Your task to perform on an android device: toggle translation in the chrome app Image 0: 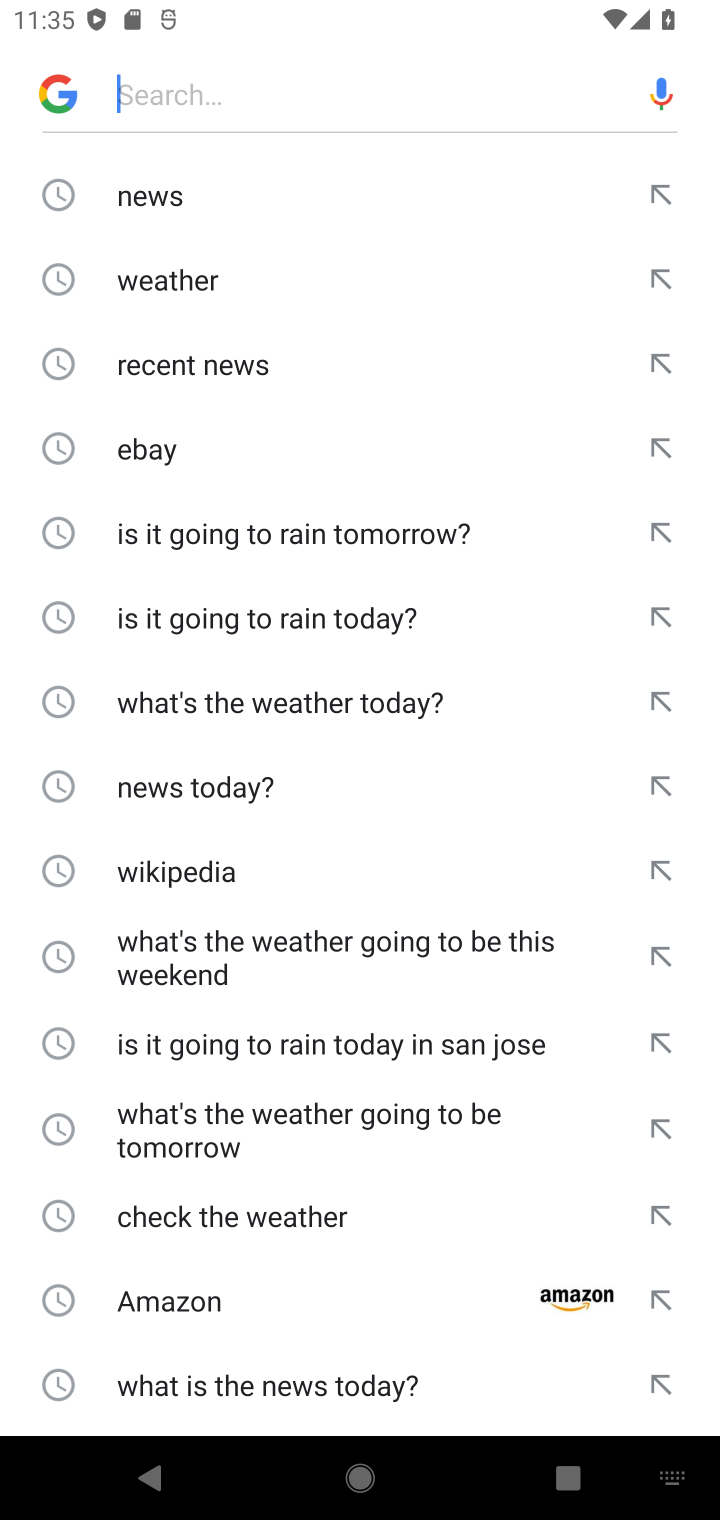
Step 0: press home button
Your task to perform on an android device: toggle translation in the chrome app Image 1: 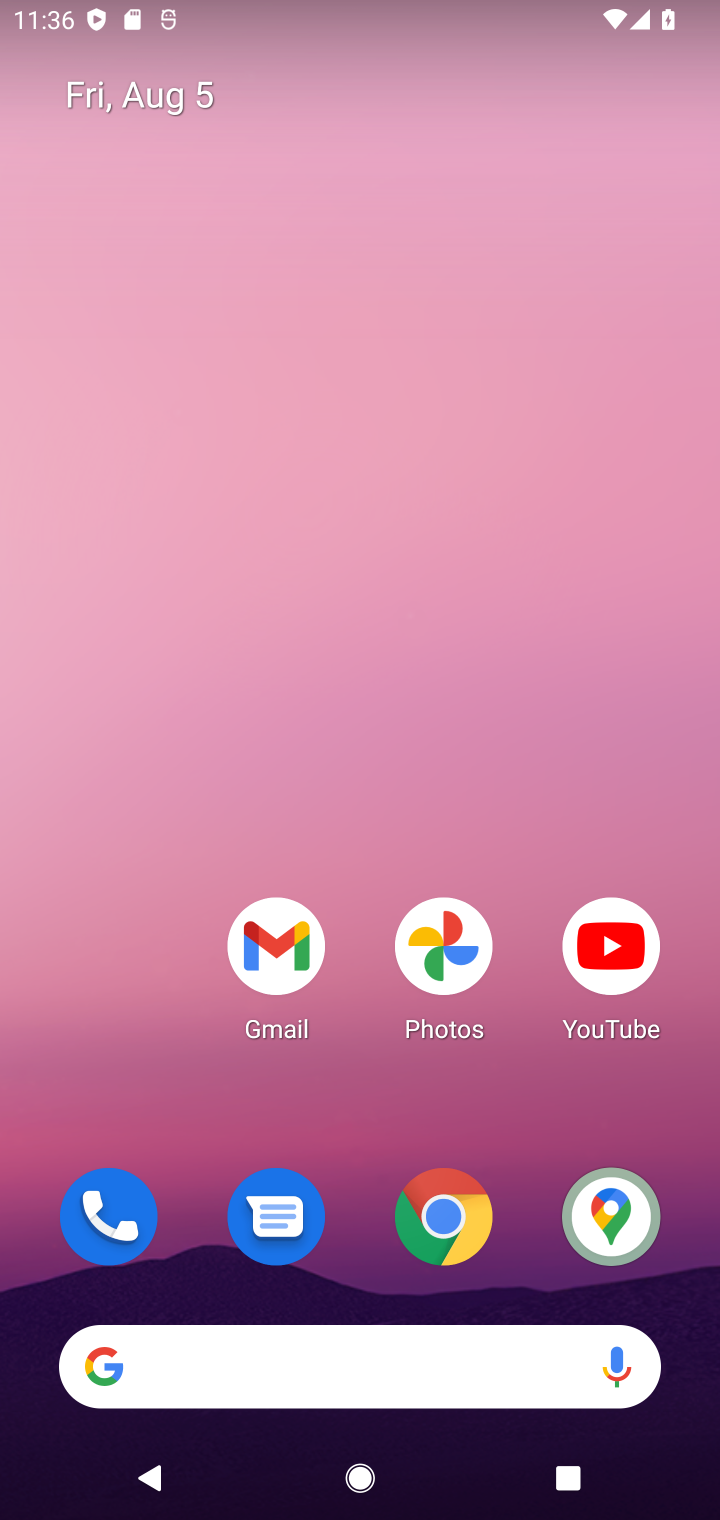
Step 1: click (437, 1231)
Your task to perform on an android device: toggle translation in the chrome app Image 2: 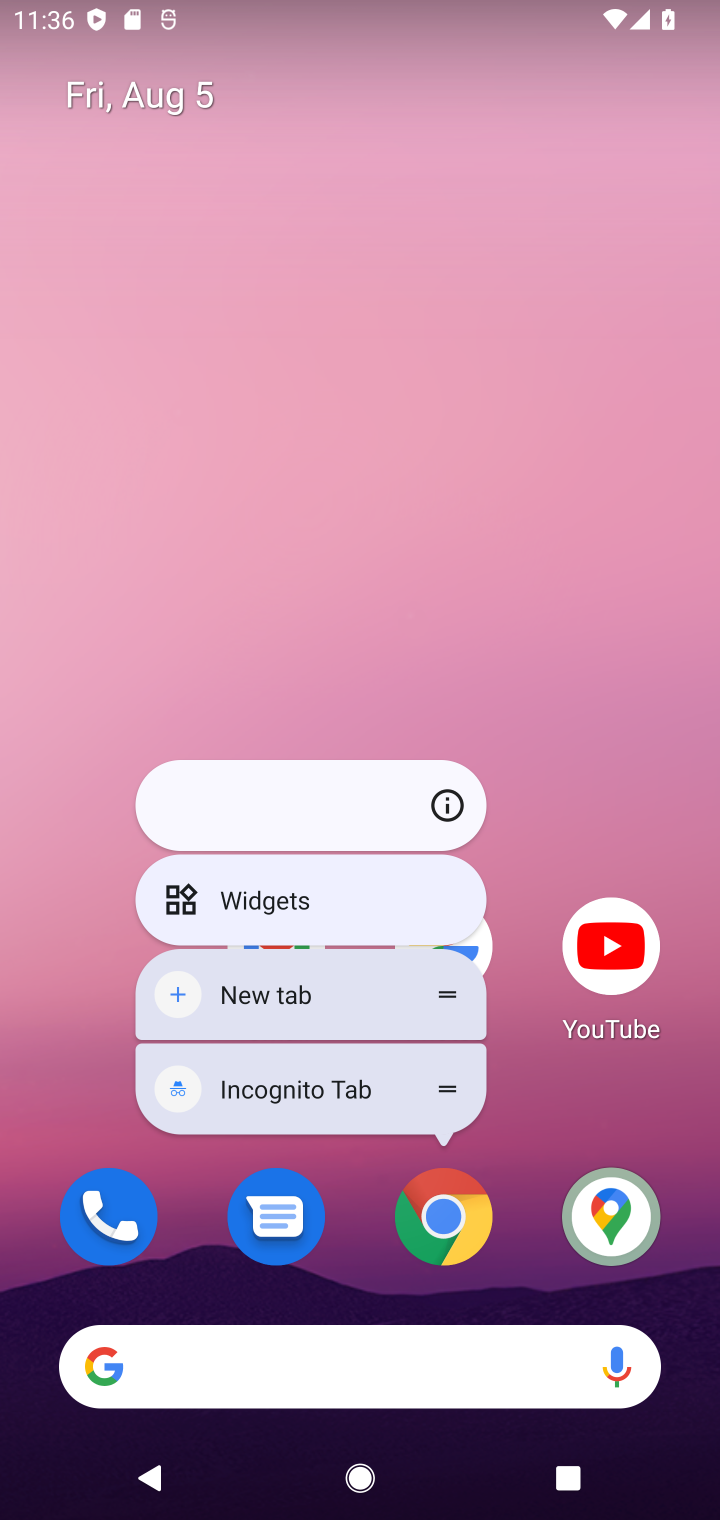
Step 2: click (437, 1231)
Your task to perform on an android device: toggle translation in the chrome app Image 3: 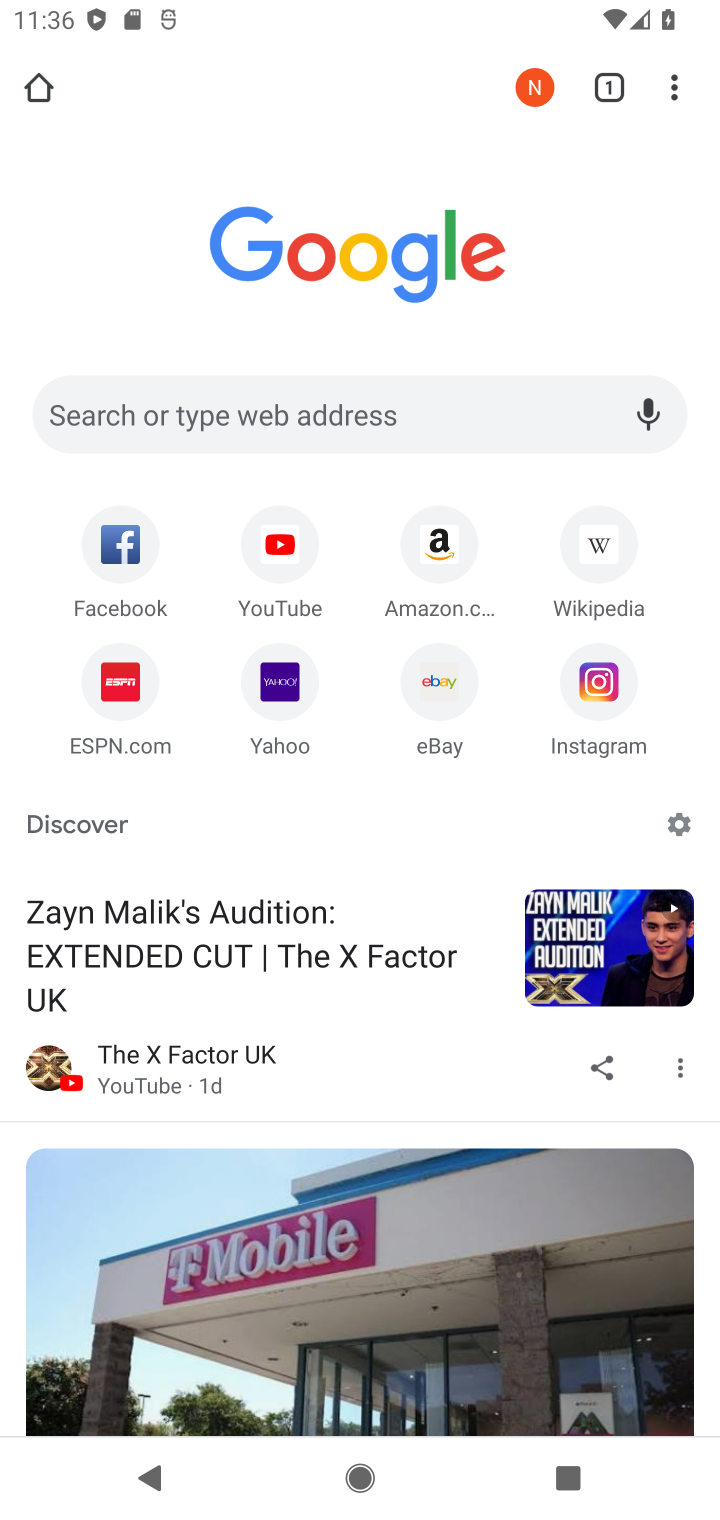
Step 3: click (671, 87)
Your task to perform on an android device: toggle translation in the chrome app Image 4: 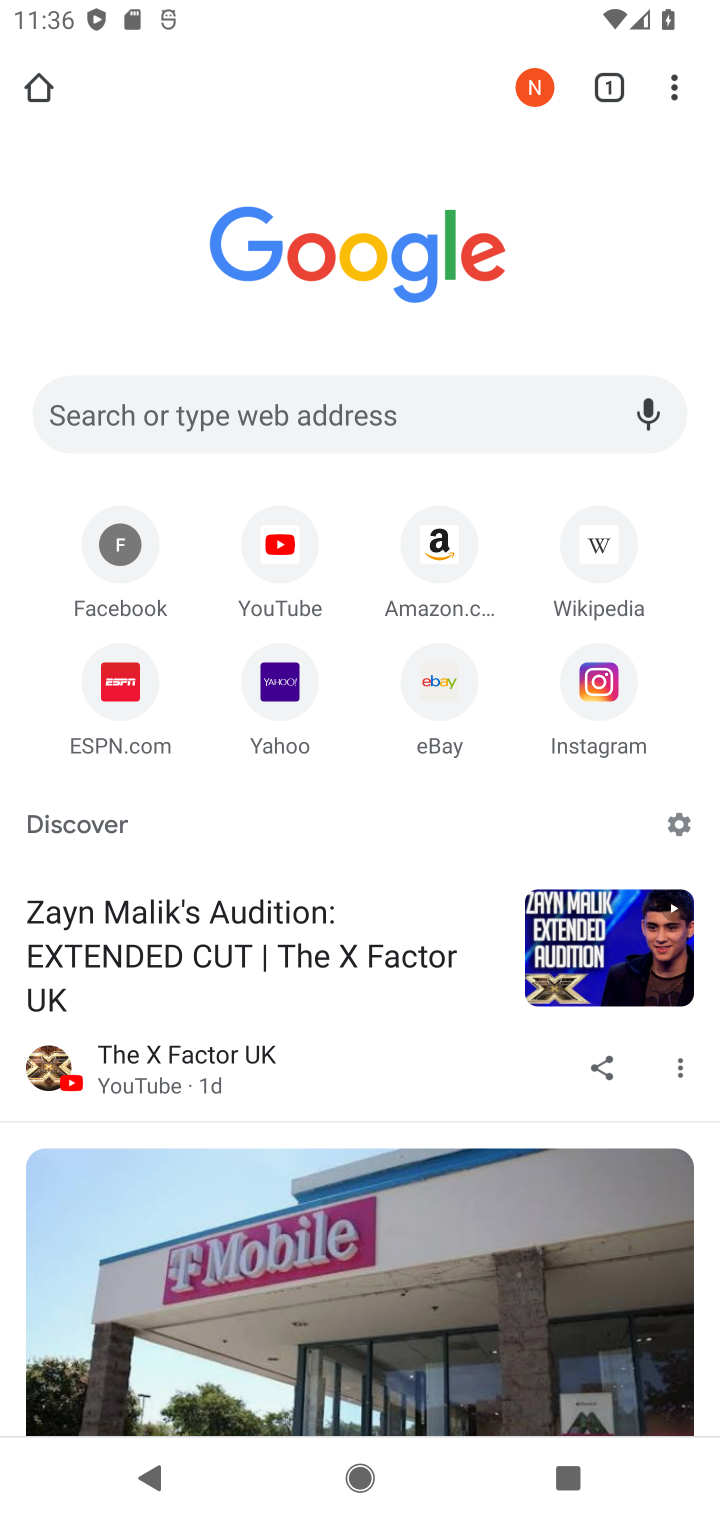
Step 4: click (671, 87)
Your task to perform on an android device: toggle translation in the chrome app Image 5: 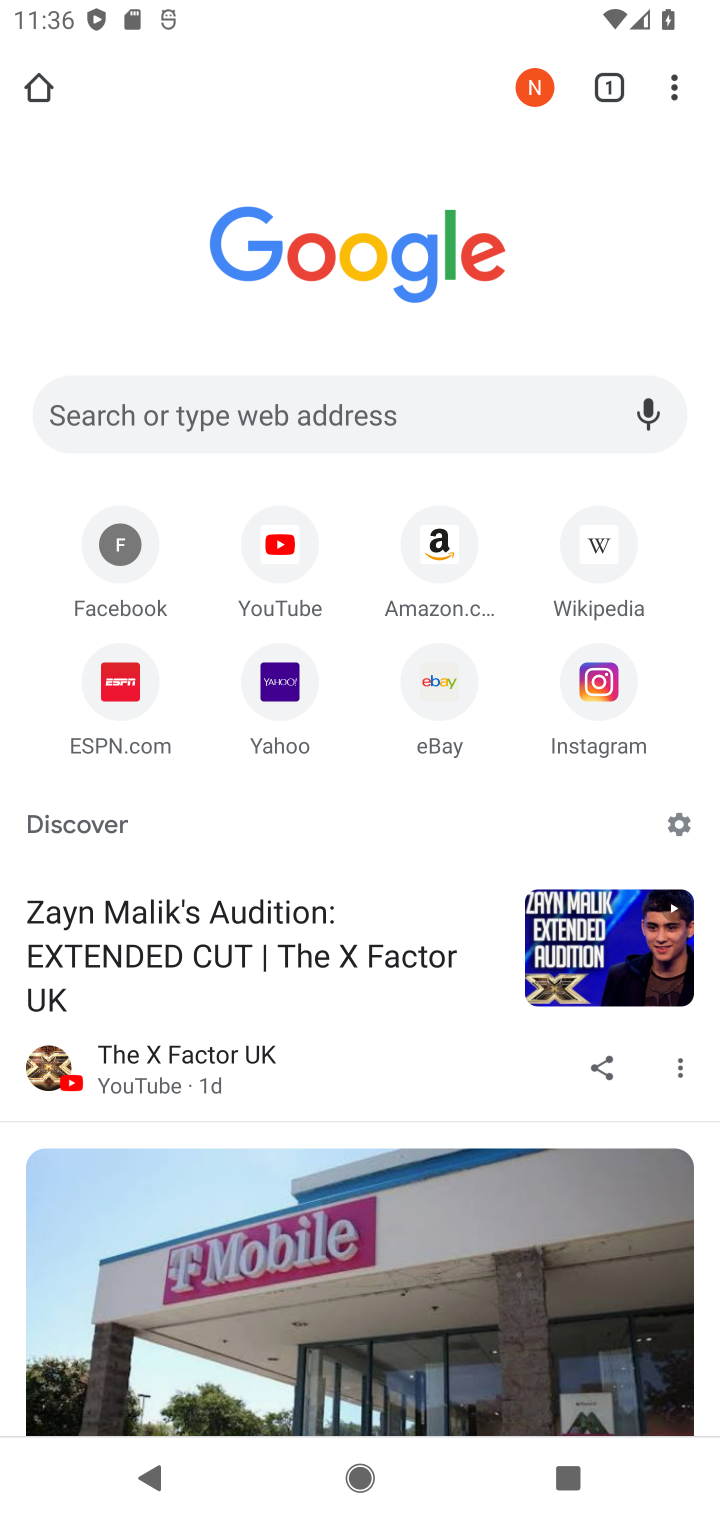
Step 5: click (671, 84)
Your task to perform on an android device: toggle translation in the chrome app Image 6: 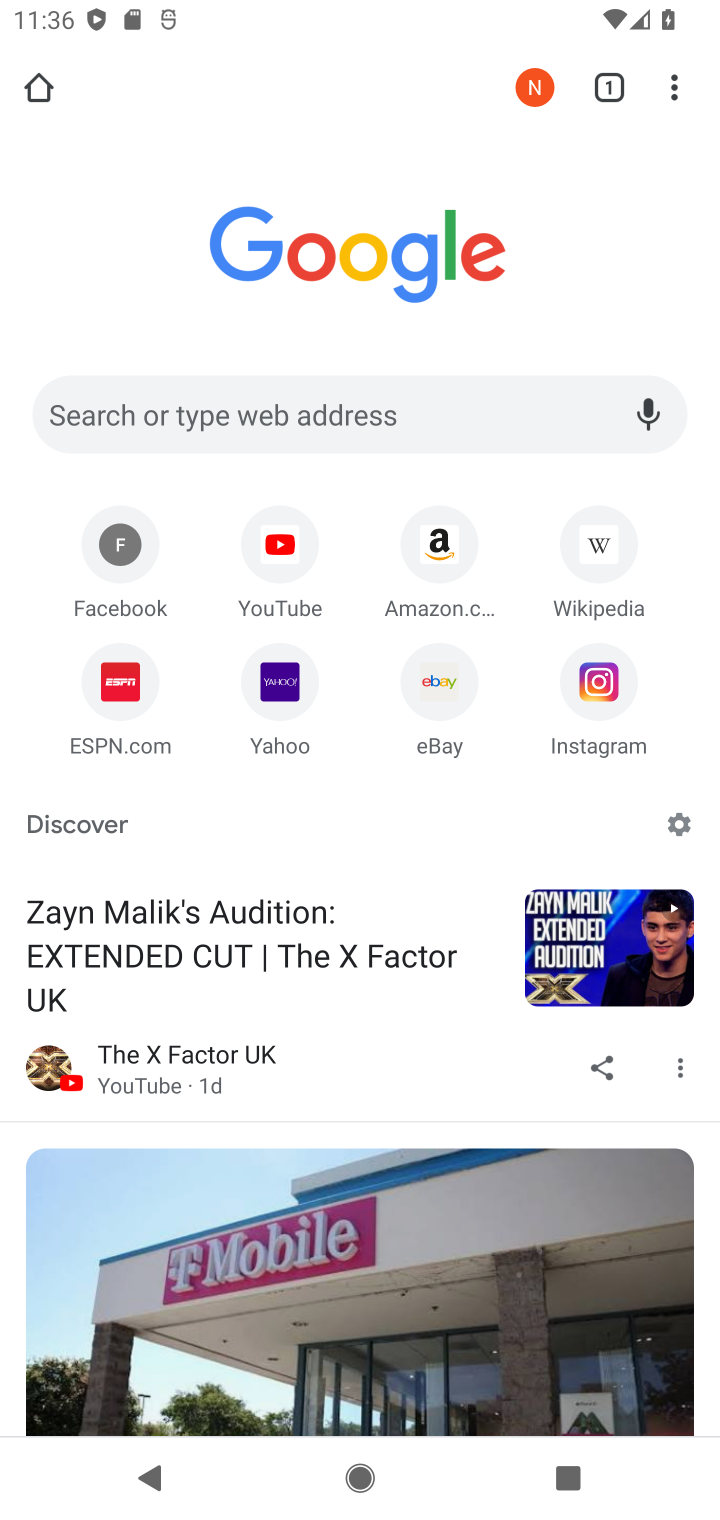
Step 6: click (671, 84)
Your task to perform on an android device: toggle translation in the chrome app Image 7: 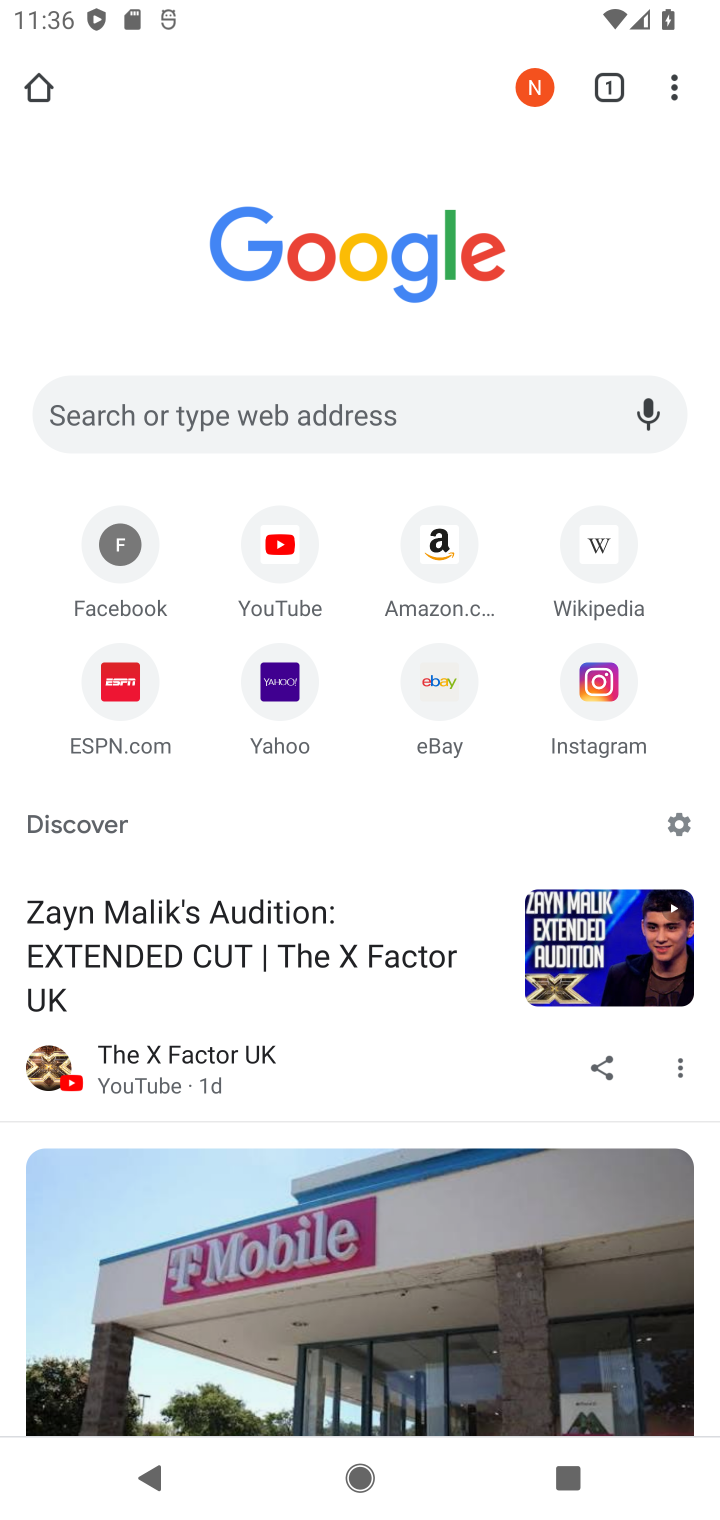
Step 7: click (671, 84)
Your task to perform on an android device: toggle translation in the chrome app Image 8: 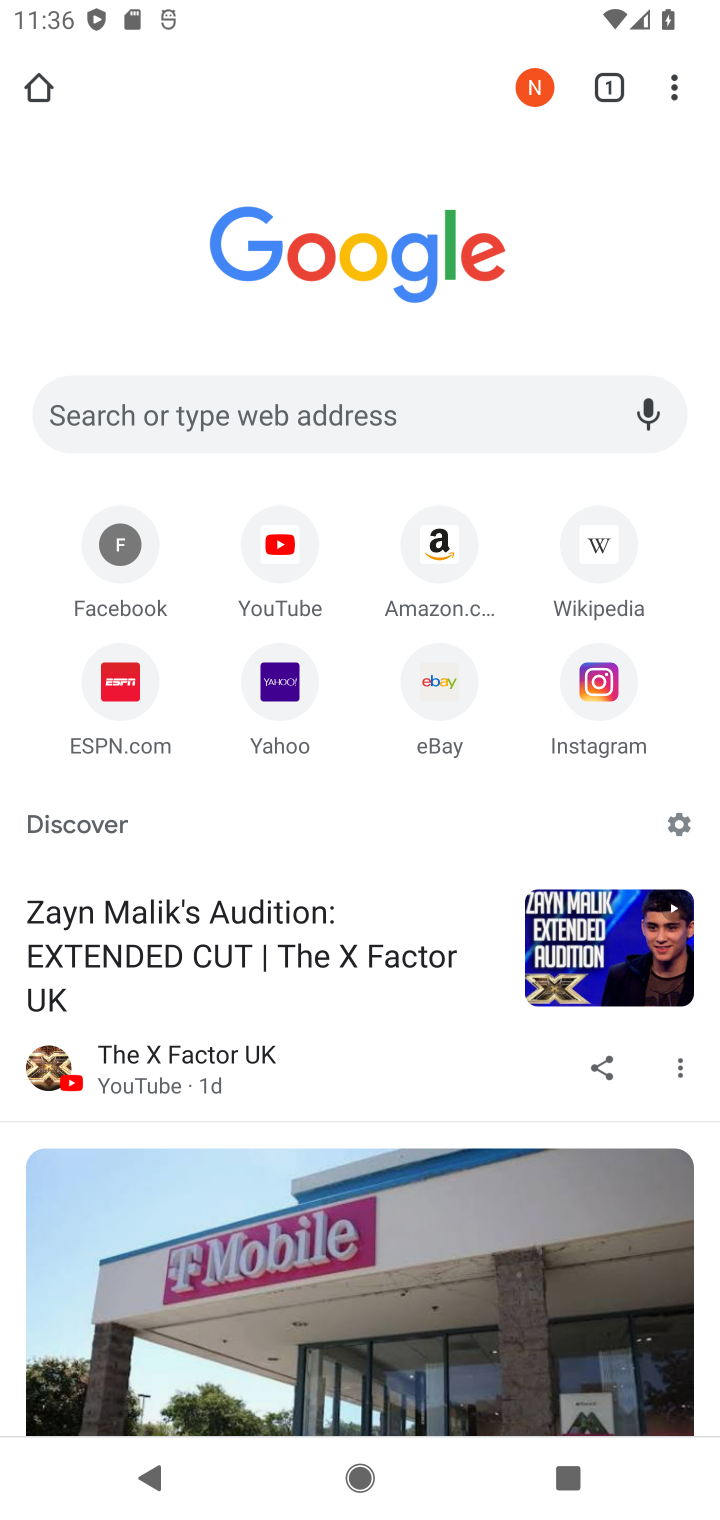
Step 8: click (671, 84)
Your task to perform on an android device: toggle translation in the chrome app Image 9: 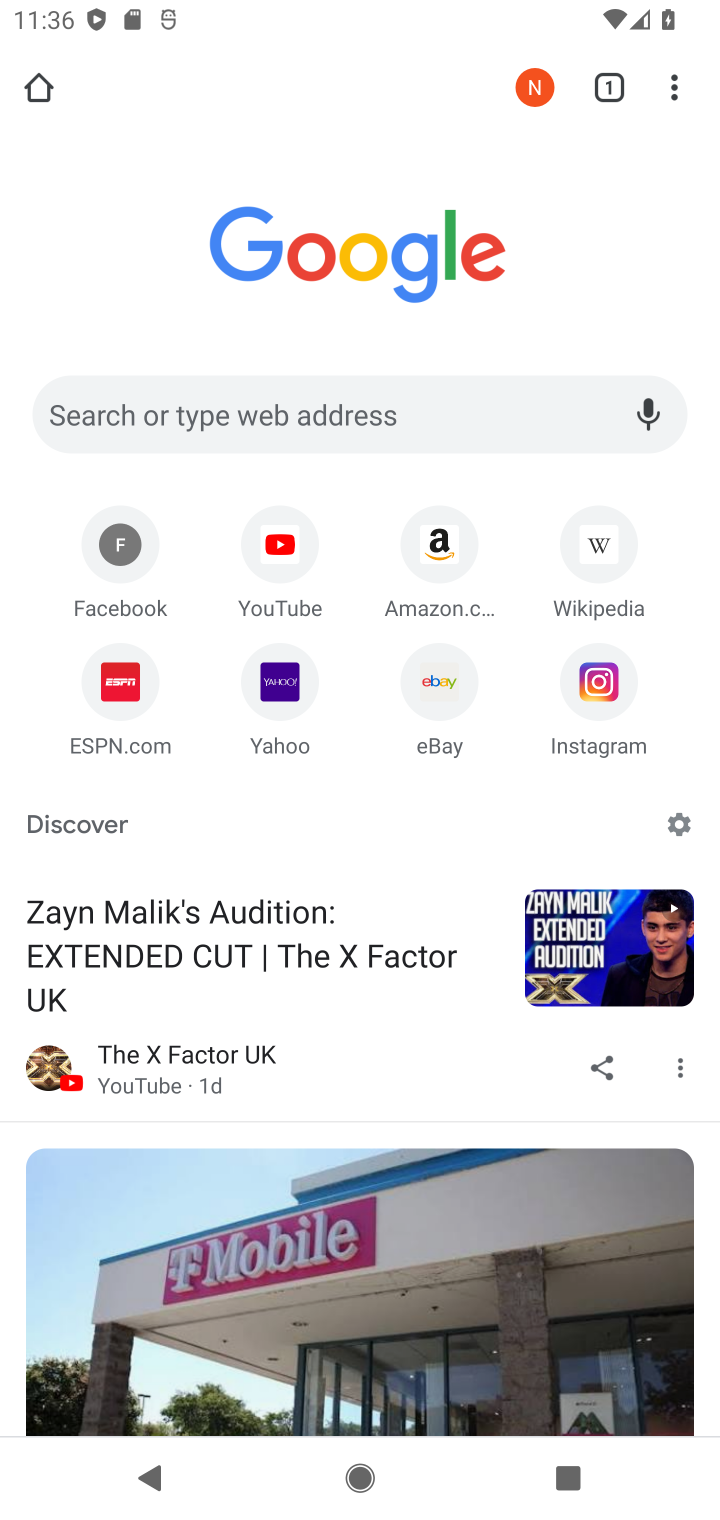
Step 9: click (674, 97)
Your task to perform on an android device: toggle translation in the chrome app Image 10: 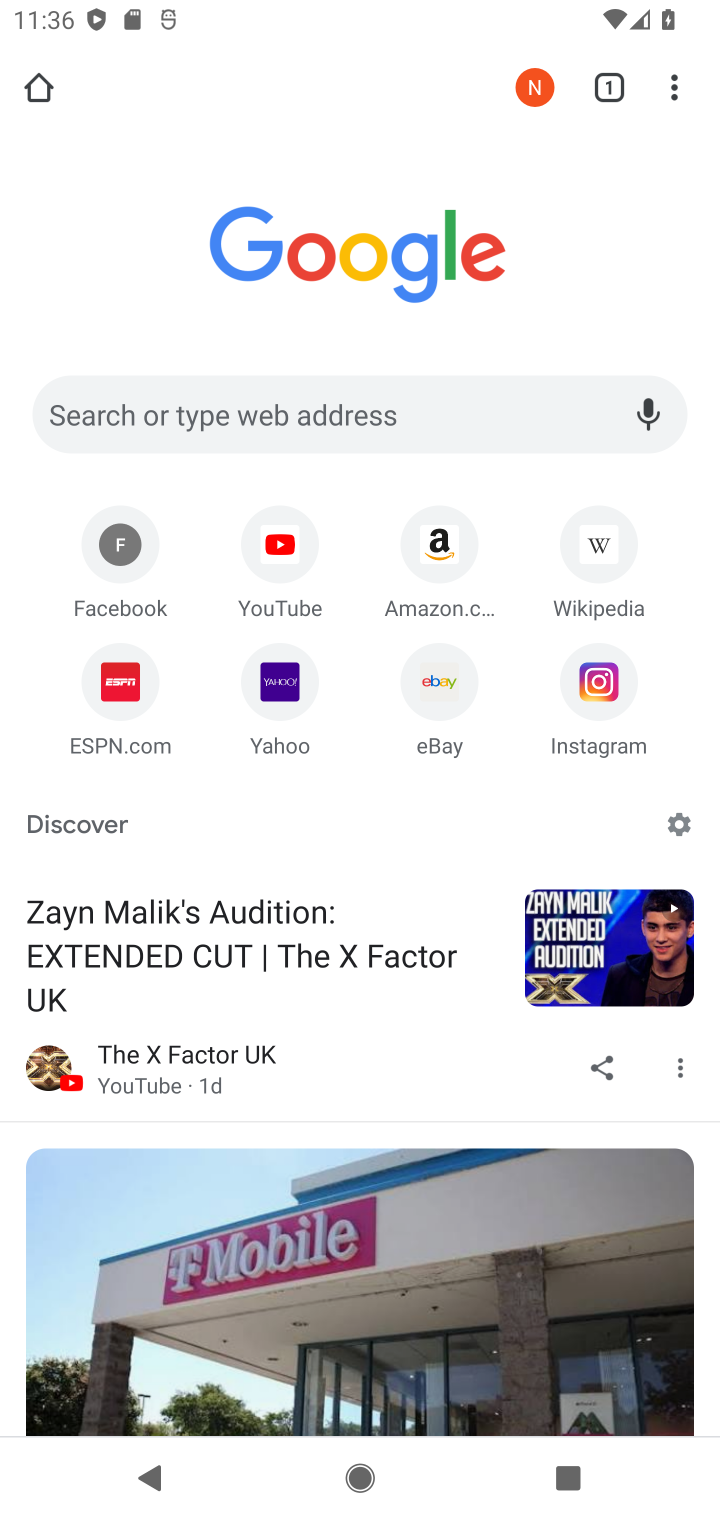
Step 10: click (674, 97)
Your task to perform on an android device: toggle translation in the chrome app Image 11: 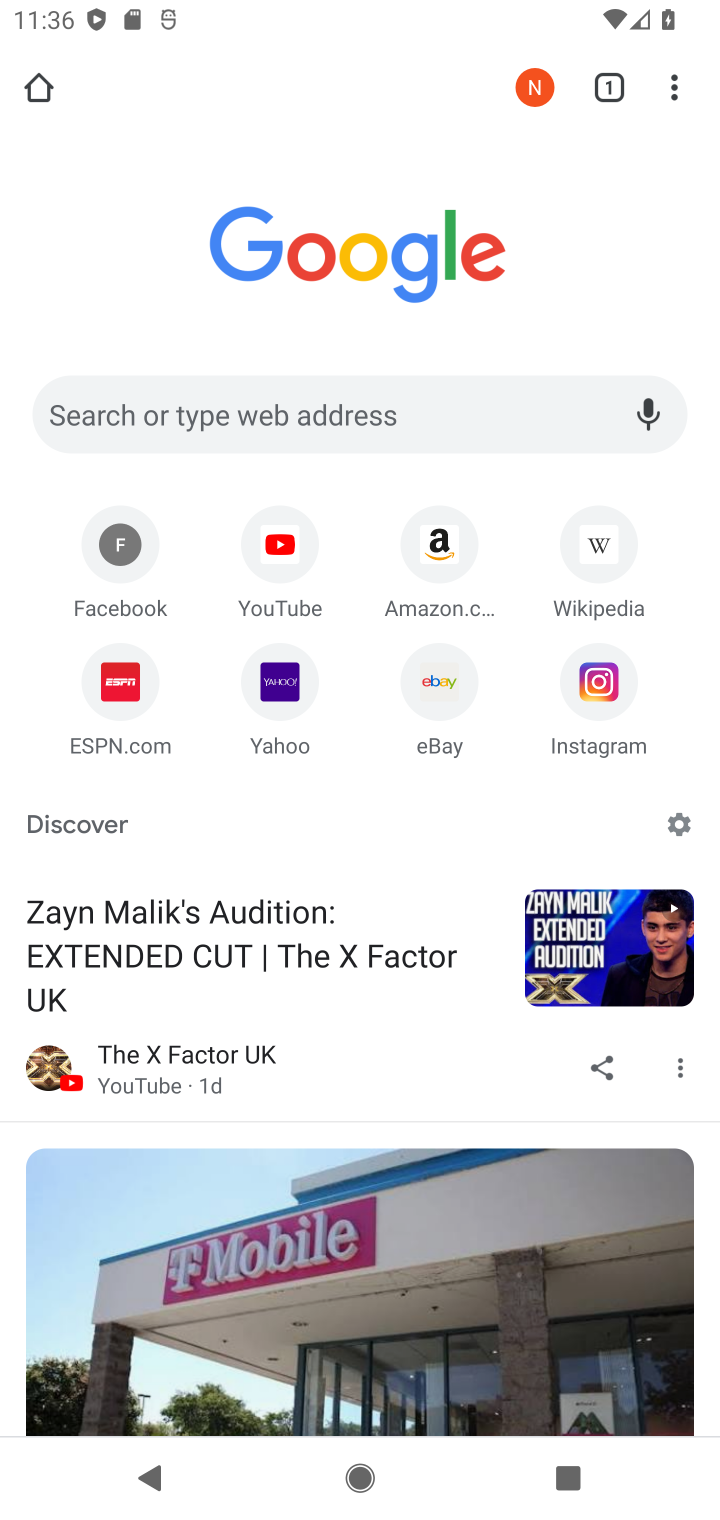
Step 11: click (674, 97)
Your task to perform on an android device: toggle translation in the chrome app Image 12: 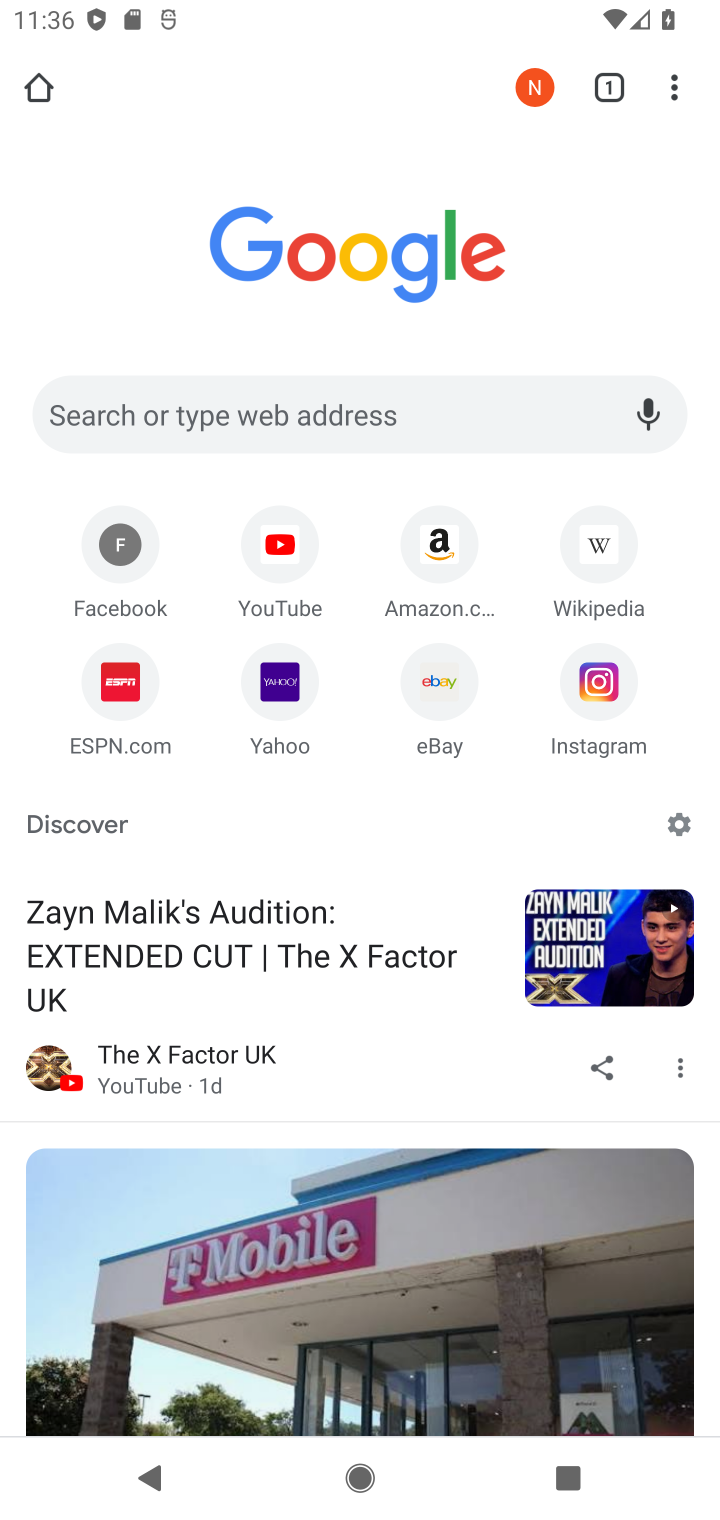
Step 12: click (674, 97)
Your task to perform on an android device: toggle translation in the chrome app Image 13: 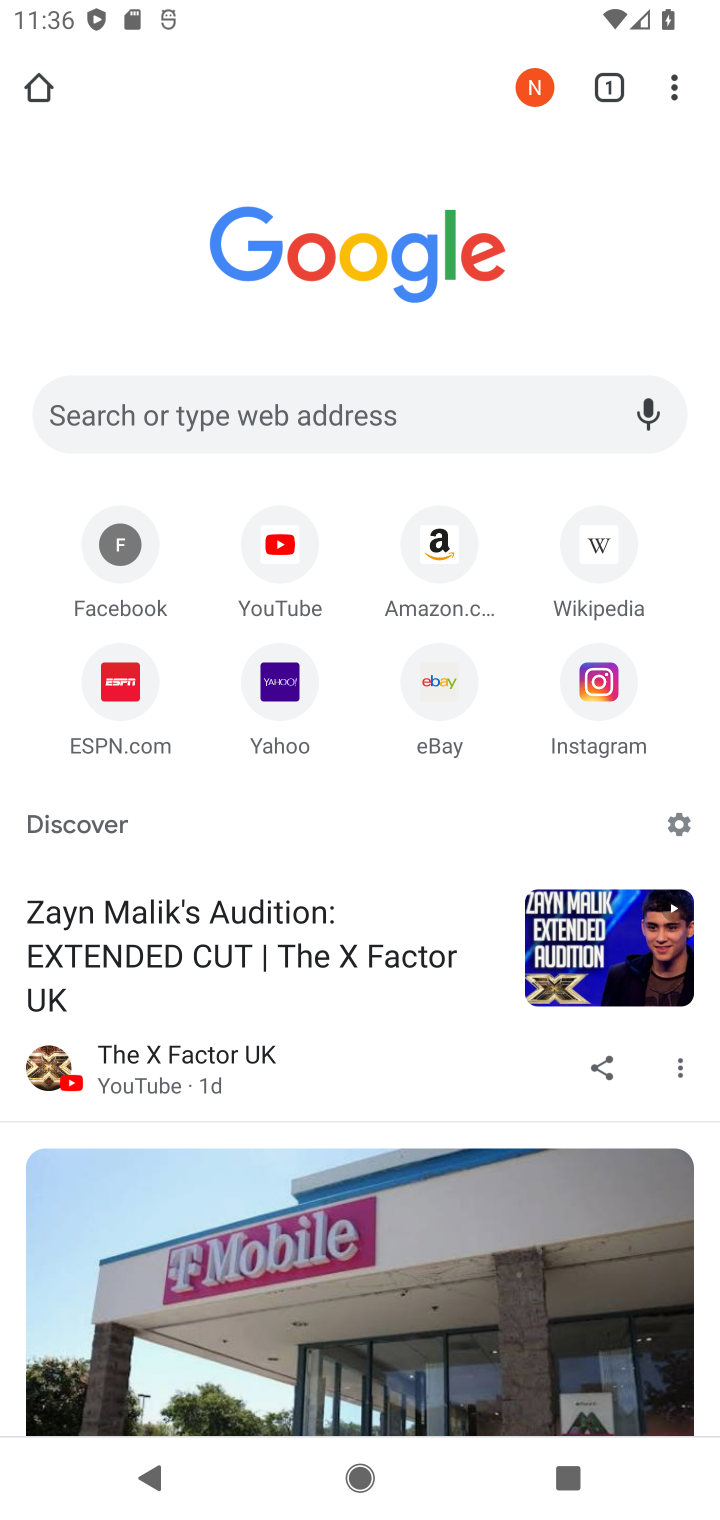
Step 13: click (674, 97)
Your task to perform on an android device: toggle translation in the chrome app Image 14: 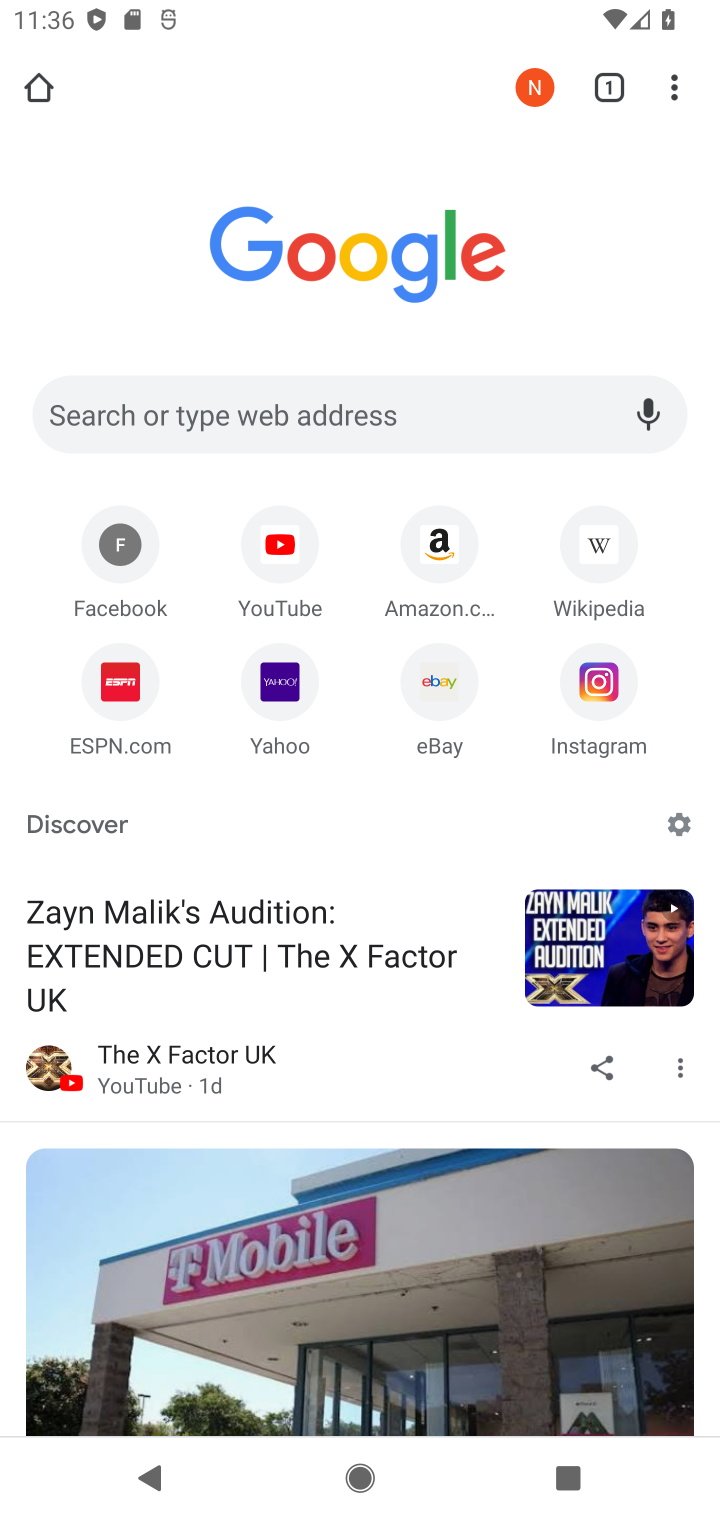
Step 14: click (674, 97)
Your task to perform on an android device: toggle translation in the chrome app Image 15: 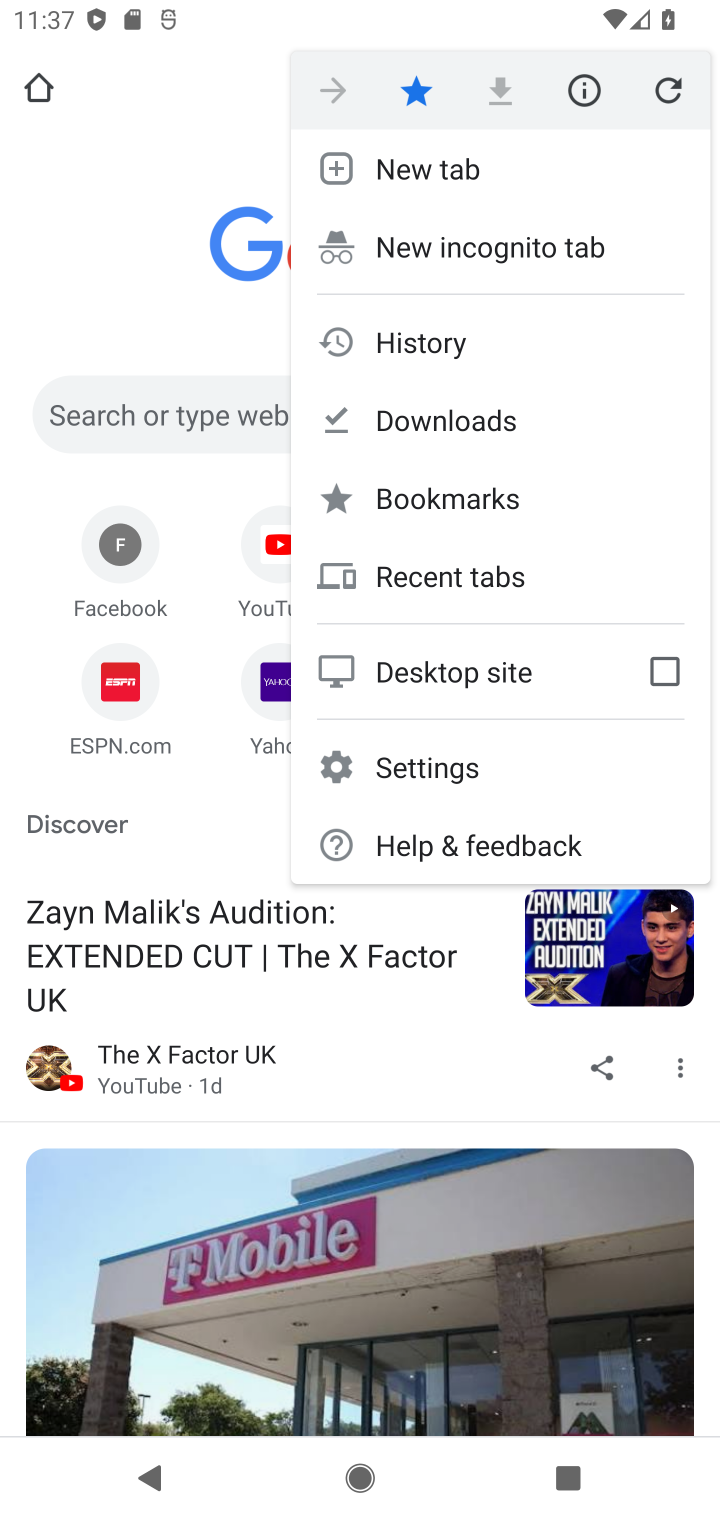
Step 15: click (438, 763)
Your task to perform on an android device: toggle translation in the chrome app Image 16: 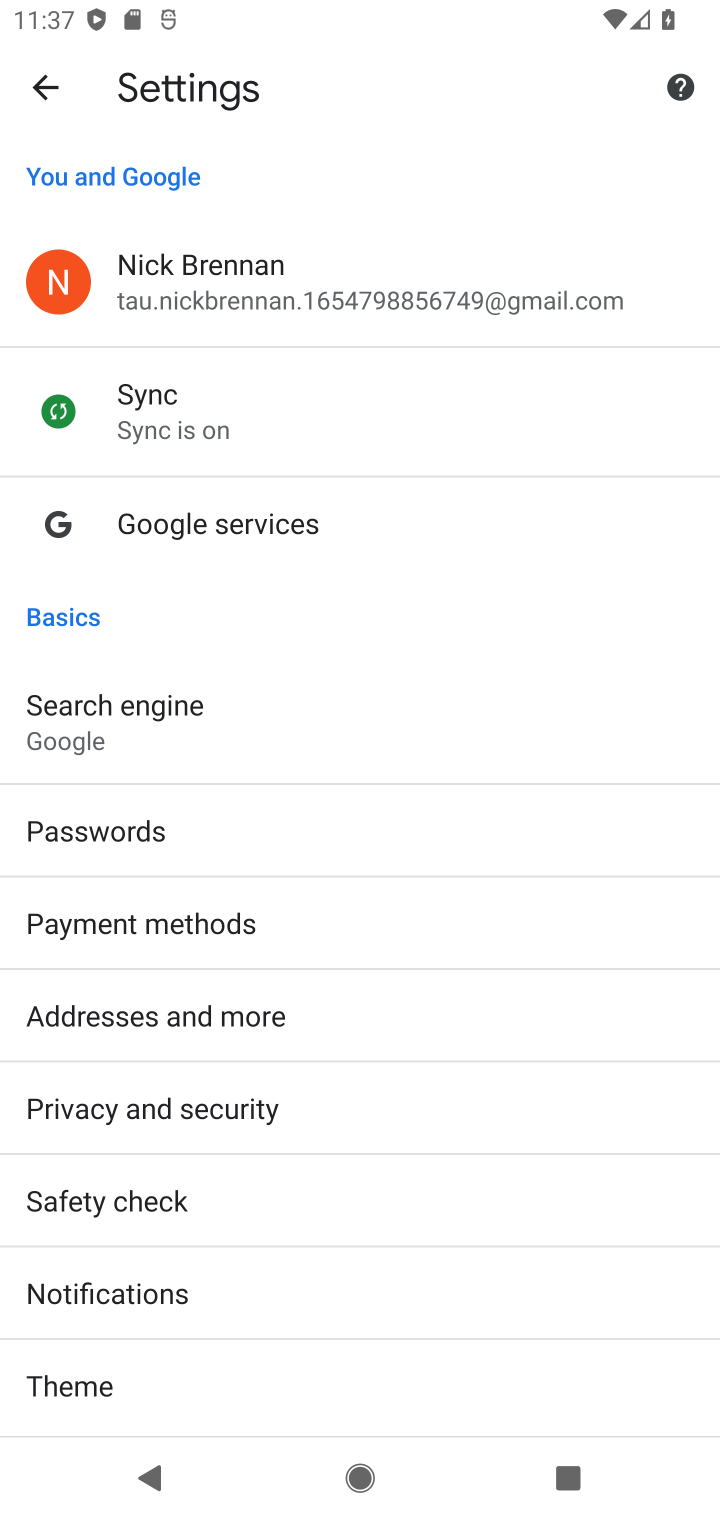
Step 16: drag from (392, 1304) to (424, 99)
Your task to perform on an android device: toggle translation in the chrome app Image 17: 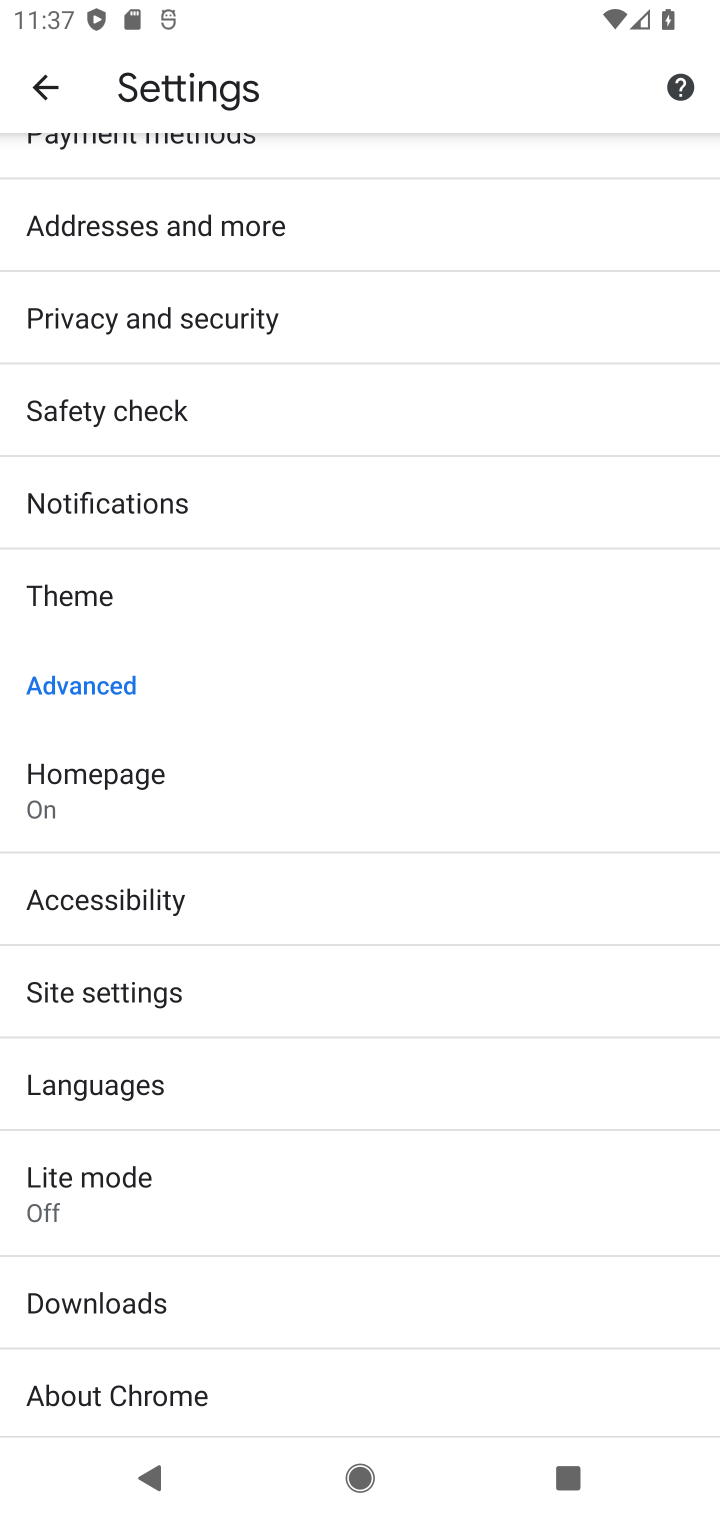
Step 17: click (316, 1080)
Your task to perform on an android device: toggle translation in the chrome app Image 18: 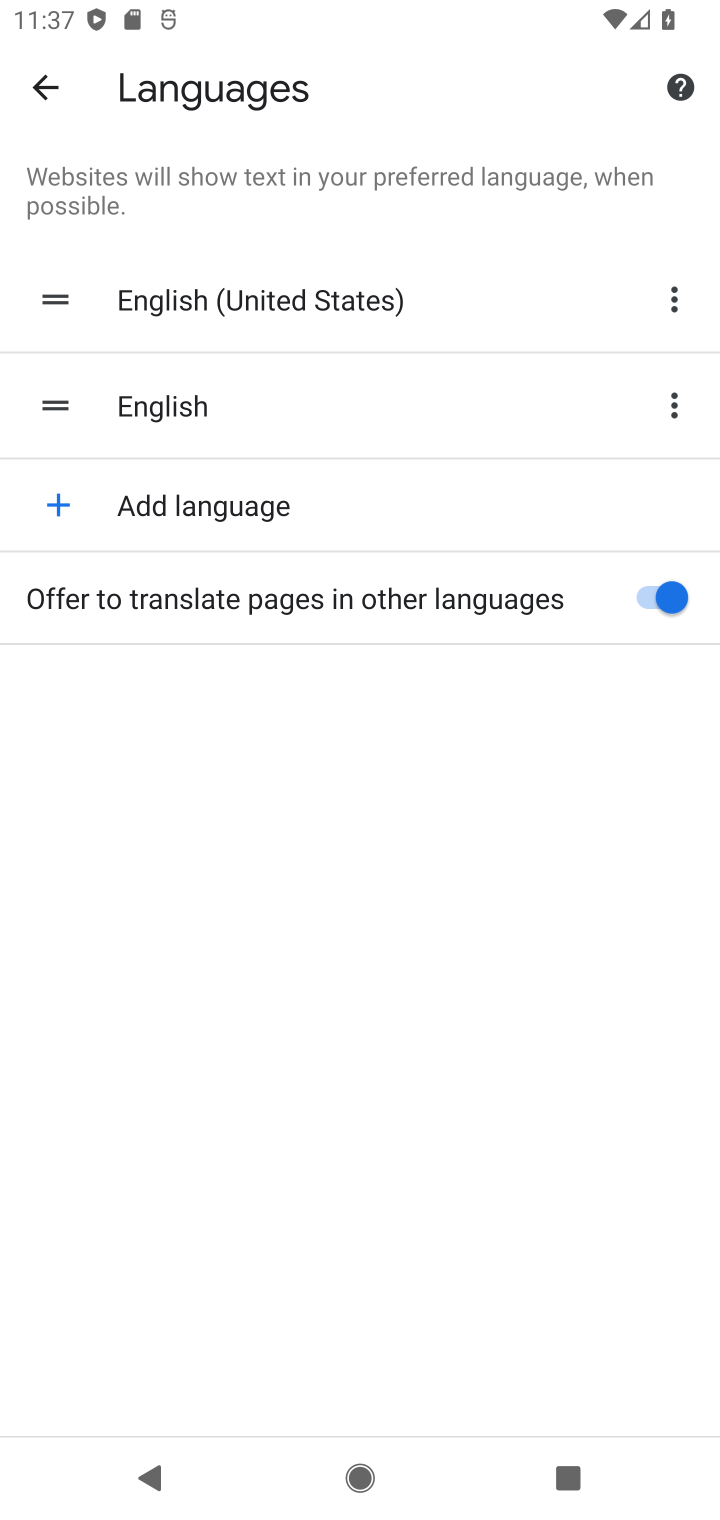
Step 18: click (677, 600)
Your task to perform on an android device: toggle translation in the chrome app Image 19: 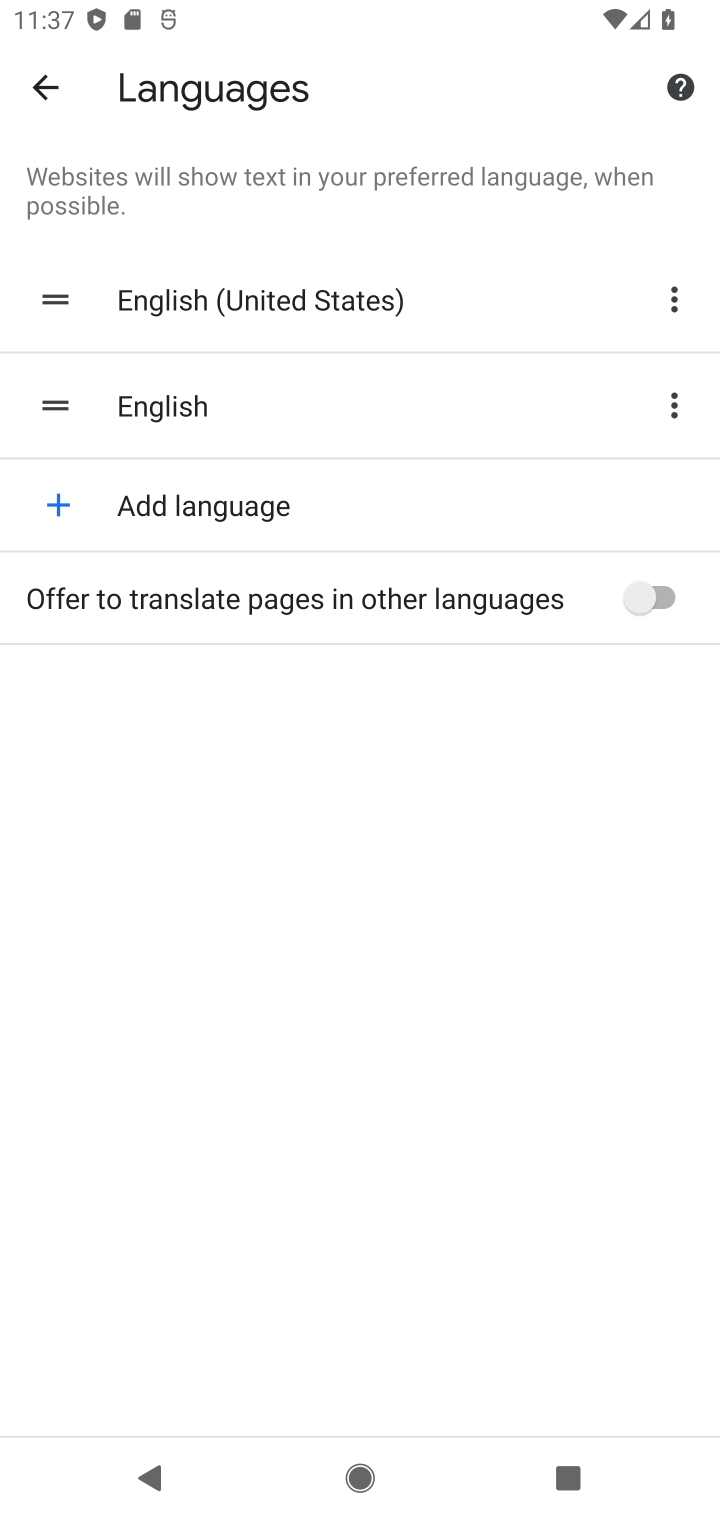
Step 19: task complete